Your task to perform on an android device: show emergency info Image 0: 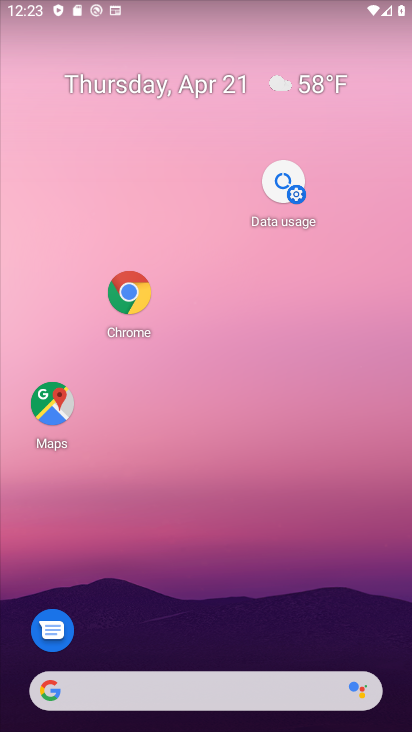
Step 0: drag from (224, 641) to (217, 279)
Your task to perform on an android device: show emergency info Image 1: 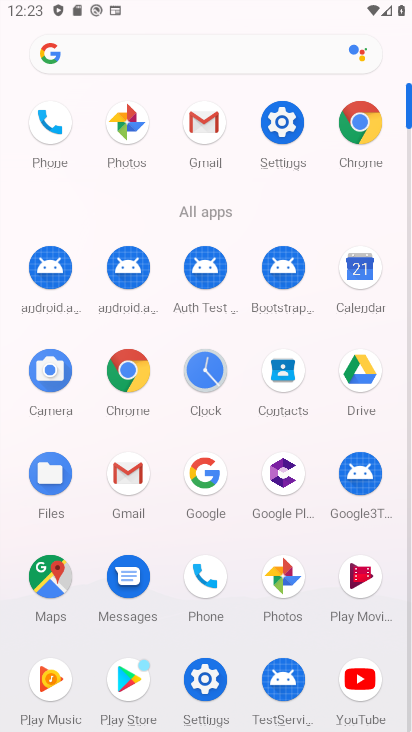
Step 1: click (290, 124)
Your task to perform on an android device: show emergency info Image 2: 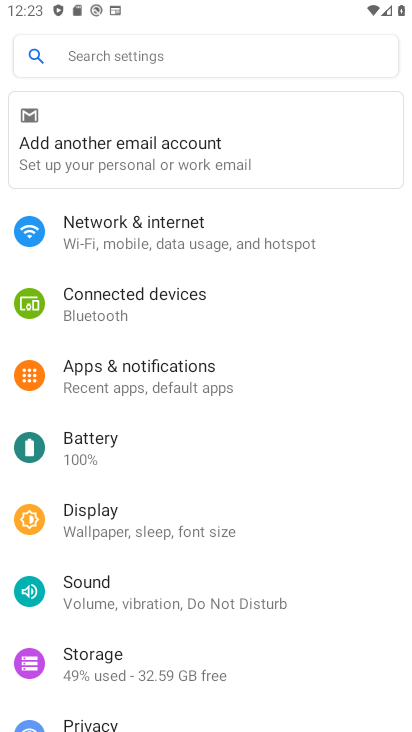
Step 2: drag from (119, 710) to (113, 349)
Your task to perform on an android device: show emergency info Image 3: 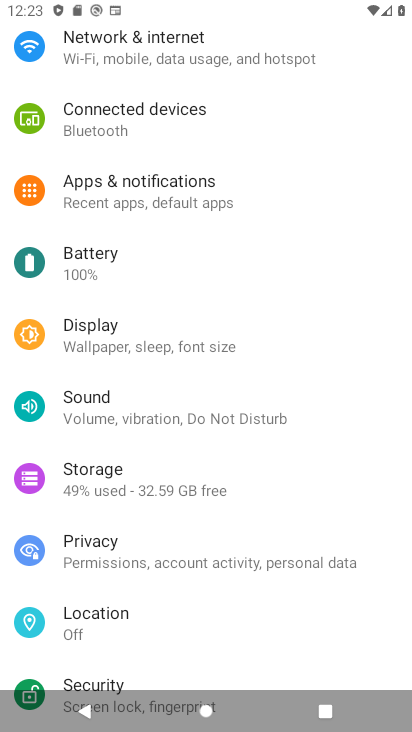
Step 3: drag from (148, 648) to (137, 354)
Your task to perform on an android device: show emergency info Image 4: 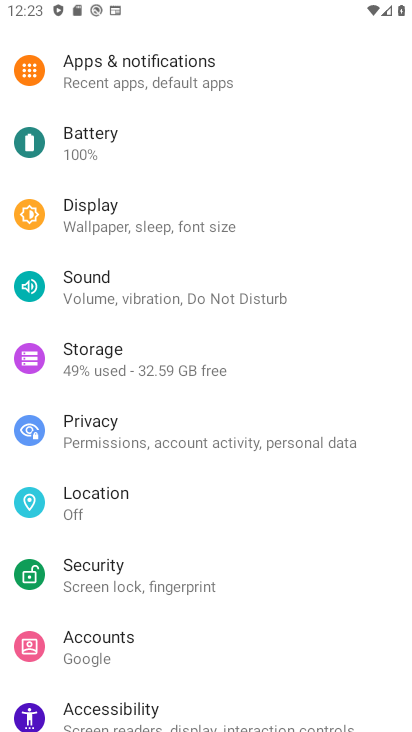
Step 4: drag from (107, 707) to (109, 376)
Your task to perform on an android device: show emergency info Image 5: 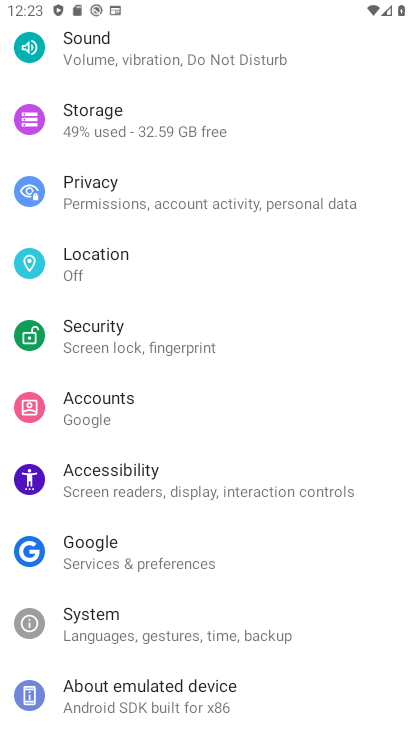
Step 5: click (114, 685)
Your task to perform on an android device: show emergency info Image 6: 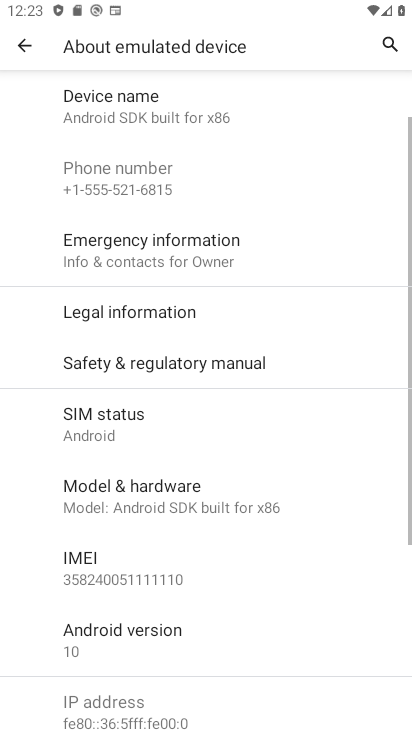
Step 6: drag from (188, 720) to (138, 379)
Your task to perform on an android device: show emergency info Image 7: 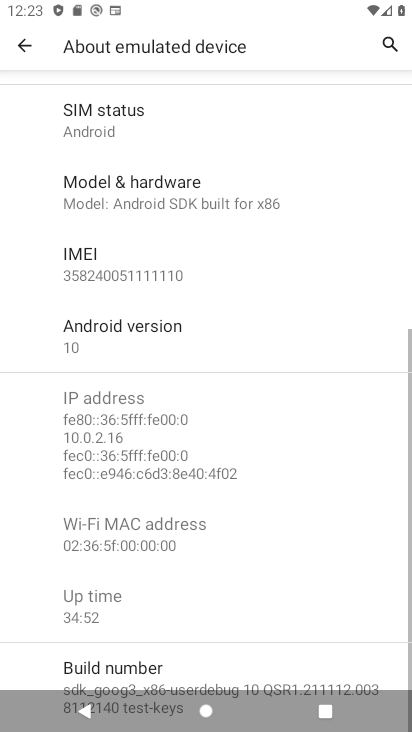
Step 7: drag from (97, 666) to (97, 427)
Your task to perform on an android device: show emergency info Image 8: 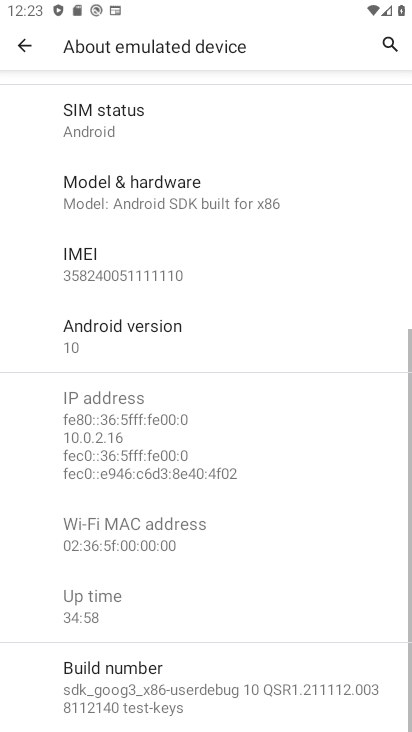
Step 8: drag from (141, 168) to (167, 461)
Your task to perform on an android device: show emergency info Image 9: 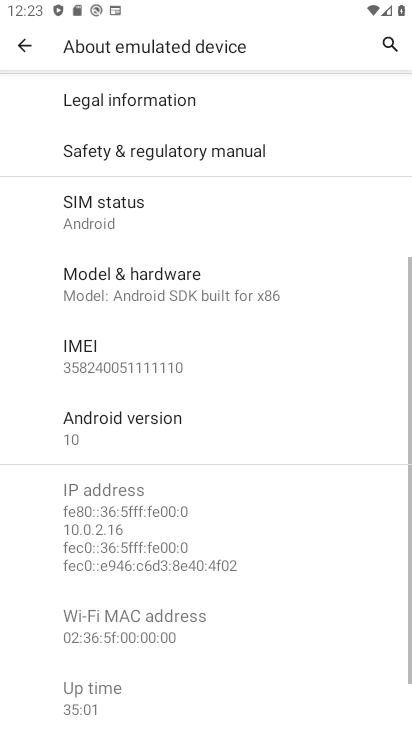
Step 9: drag from (143, 116) to (159, 414)
Your task to perform on an android device: show emergency info Image 10: 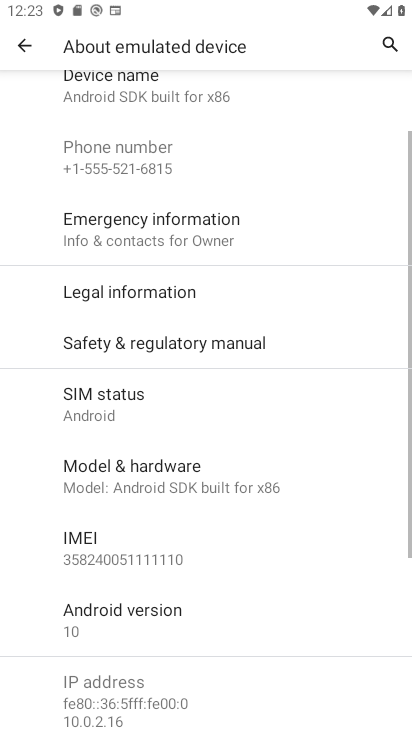
Step 10: click (112, 224)
Your task to perform on an android device: show emergency info Image 11: 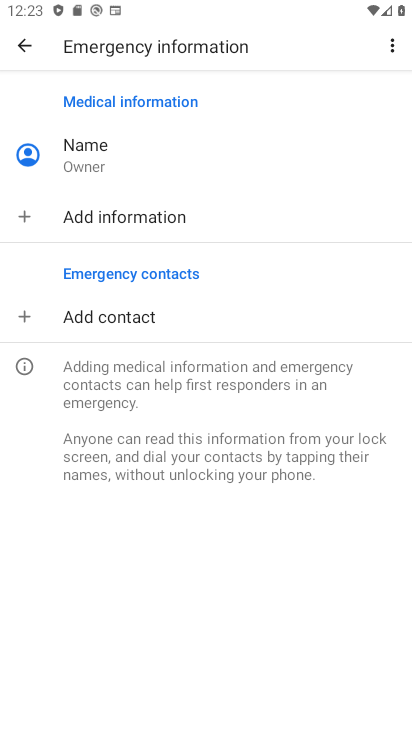
Step 11: task complete